Your task to perform on an android device: Find coffee shops on Maps Image 0: 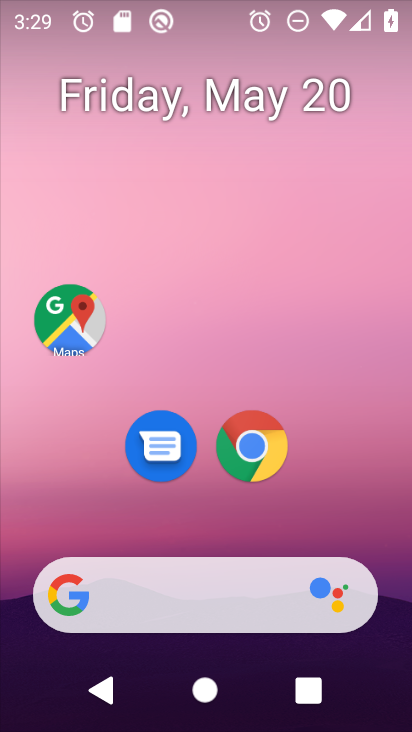
Step 0: click (69, 321)
Your task to perform on an android device: Find coffee shops on Maps Image 1: 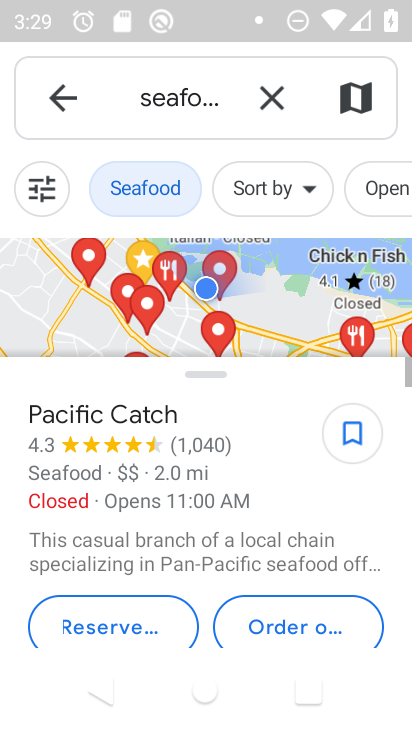
Step 1: click (267, 104)
Your task to perform on an android device: Find coffee shops on Maps Image 2: 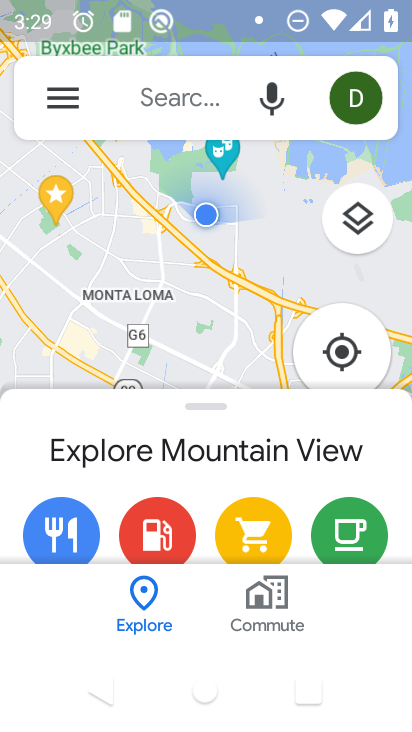
Step 2: click (147, 93)
Your task to perform on an android device: Find coffee shops on Maps Image 3: 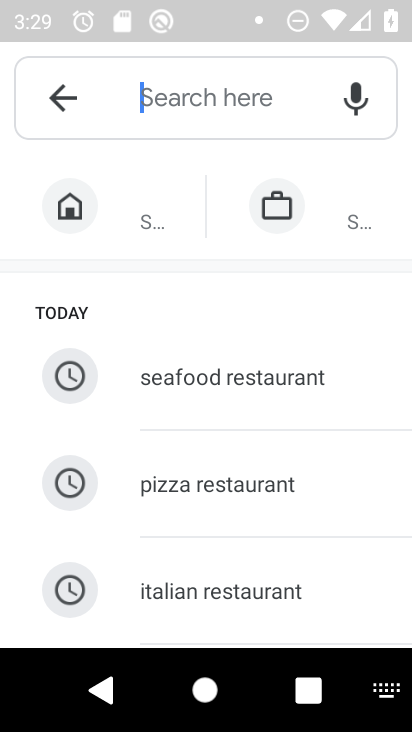
Step 3: type "coffee shops"
Your task to perform on an android device: Find coffee shops on Maps Image 4: 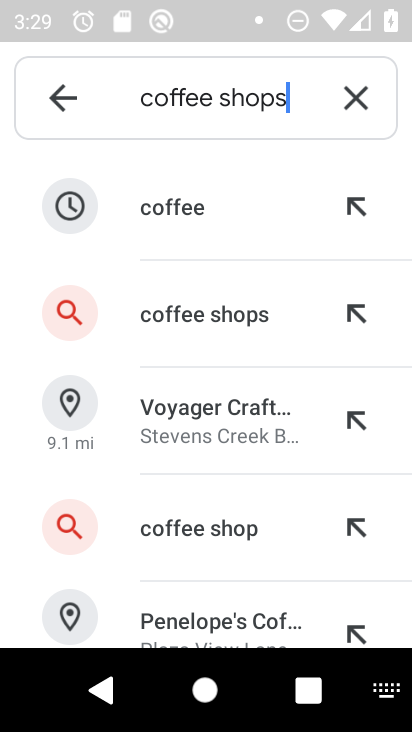
Step 4: click (214, 314)
Your task to perform on an android device: Find coffee shops on Maps Image 5: 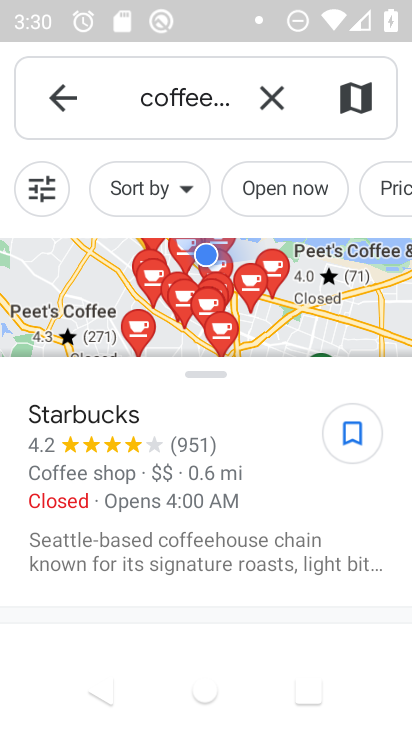
Step 5: task complete